Your task to perform on an android device: delete the emails in spam in the gmail app Image 0: 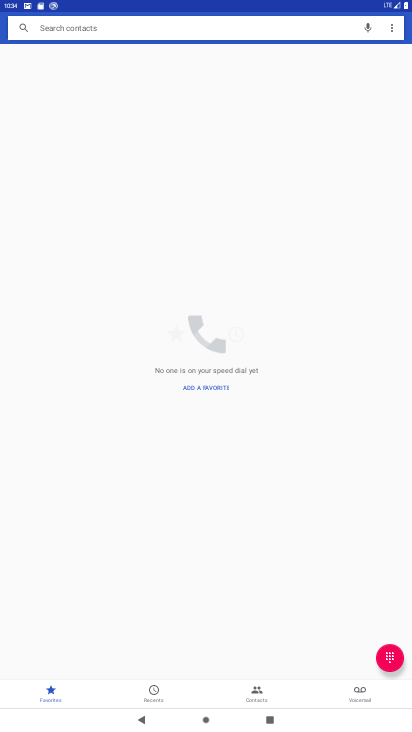
Step 0: press home button
Your task to perform on an android device: delete the emails in spam in the gmail app Image 1: 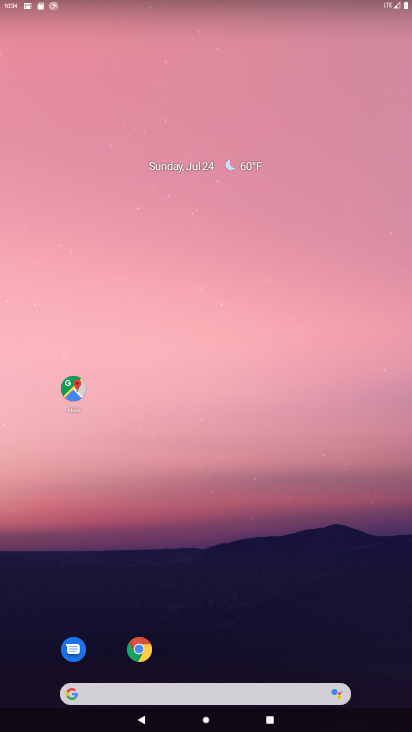
Step 1: drag from (213, 662) to (182, 166)
Your task to perform on an android device: delete the emails in spam in the gmail app Image 2: 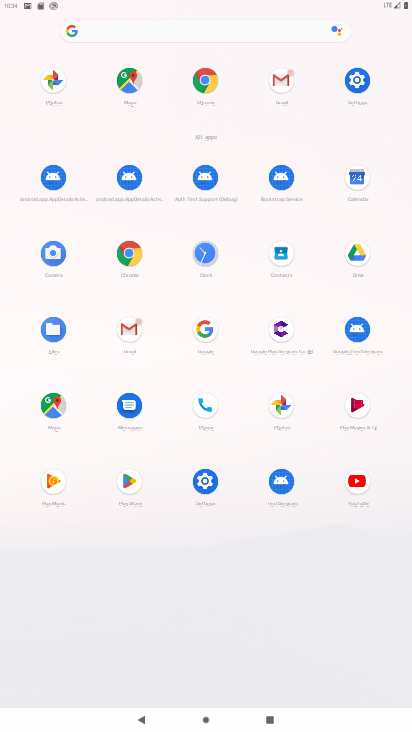
Step 2: click (282, 83)
Your task to perform on an android device: delete the emails in spam in the gmail app Image 3: 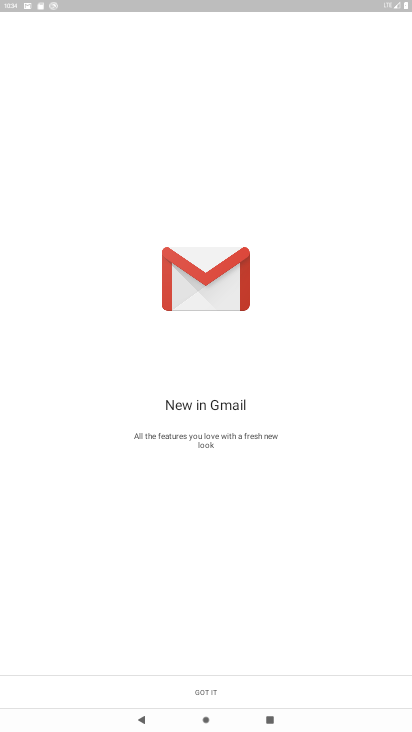
Step 3: click (209, 693)
Your task to perform on an android device: delete the emails in spam in the gmail app Image 4: 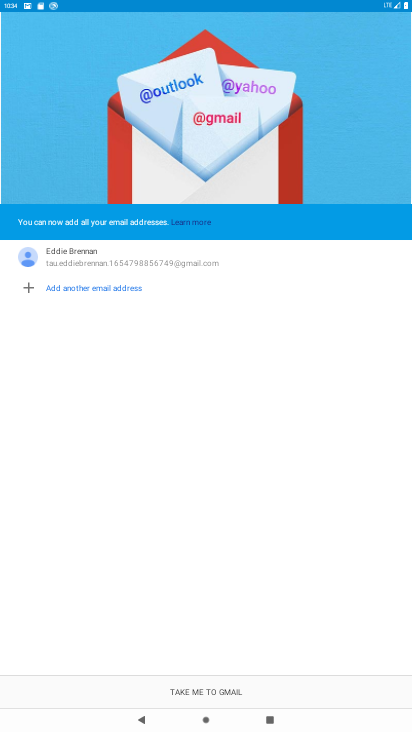
Step 4: click (209, 693)
Your task to perform on an android device: delete the emails in spam in the gmail app Image 5: 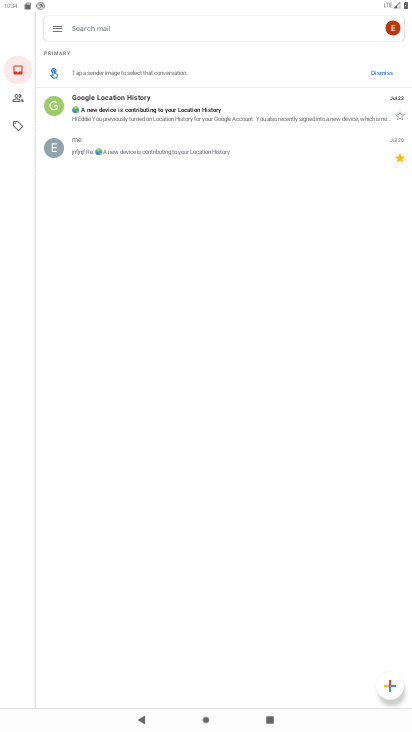
Step 5: click (54, 30)
Your task to perform on an android device: delete the emails in spam in the gmail app Image 6: 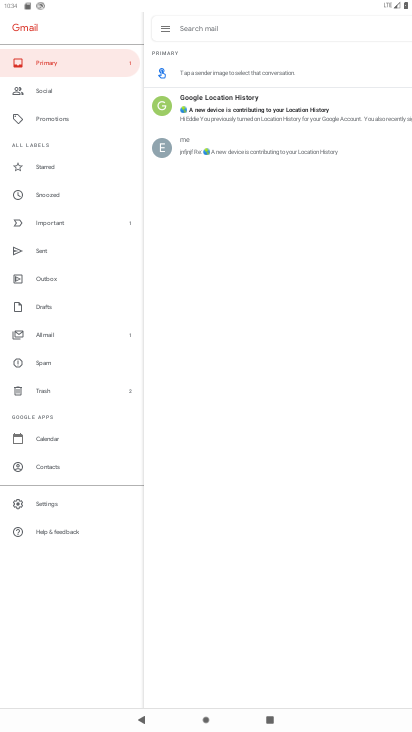
Step 6: click (65, 362)
Your task to perform on an android device: delete the emails in spam in the gmail app Image 7: 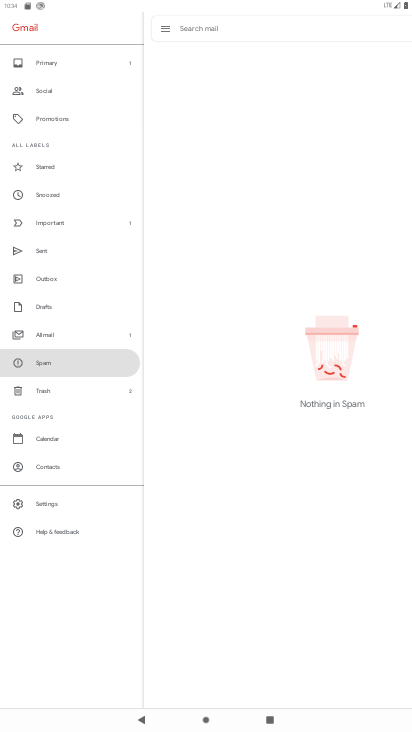
Step 7: task complete